Your task to perform on an android device: refresh tabs in the chrome app Image 0: 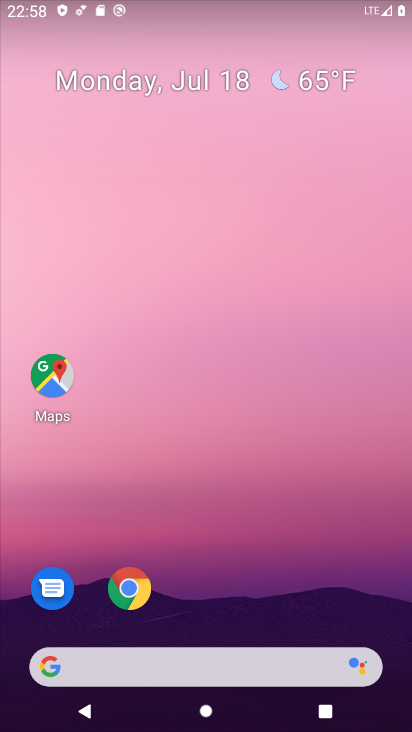
Step 0: press home button
Your task to perform on an android device: refresh tabs in the chrome app Image 1: 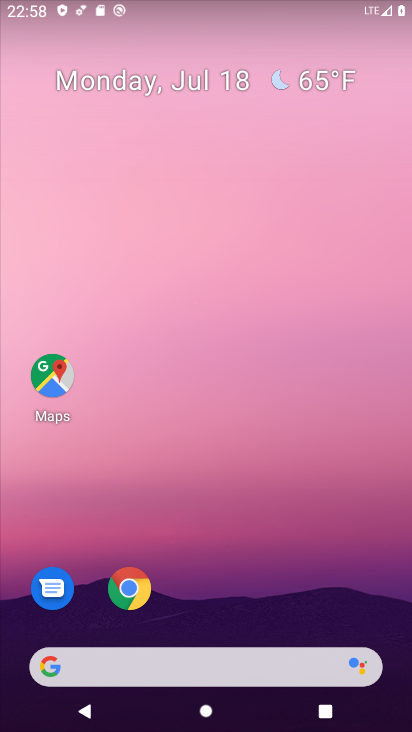
Step 1: click (125, 589)
Your task to perform on an android device: refresh tabs in the chrome app Image 2: 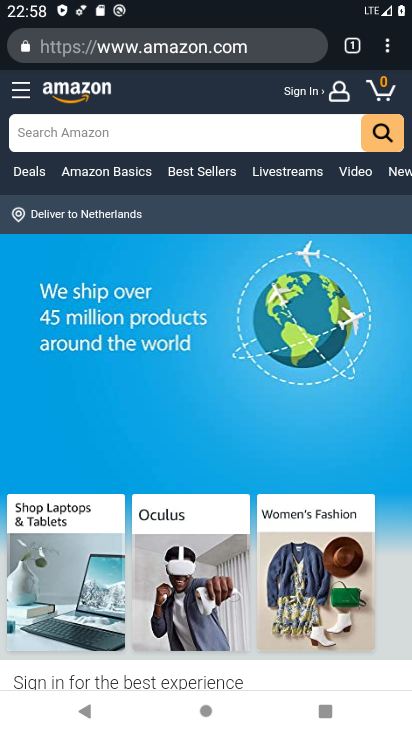
Step 2: click (391, 43)
Your task to perform on an android device: refresh tabs in the chrome app Image 3: 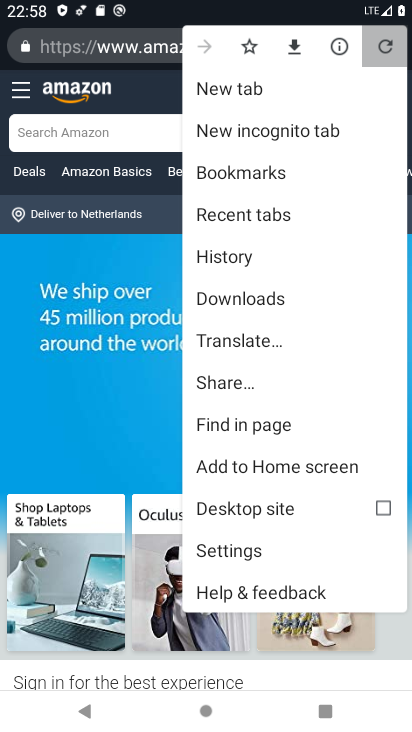
Step 3: click (390, 47)
Your task to perform on an android device: refresh tabs in the chrome app Image 4: 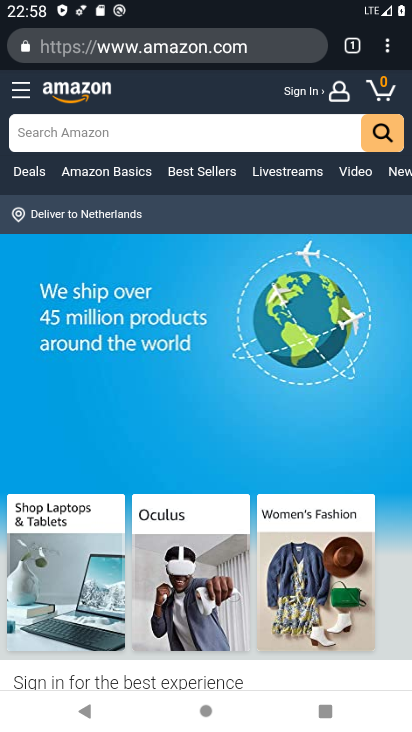
Step 4: click (390, 41)
Your task to perform on an android device: refresh tabs in the chrome app Image 5: 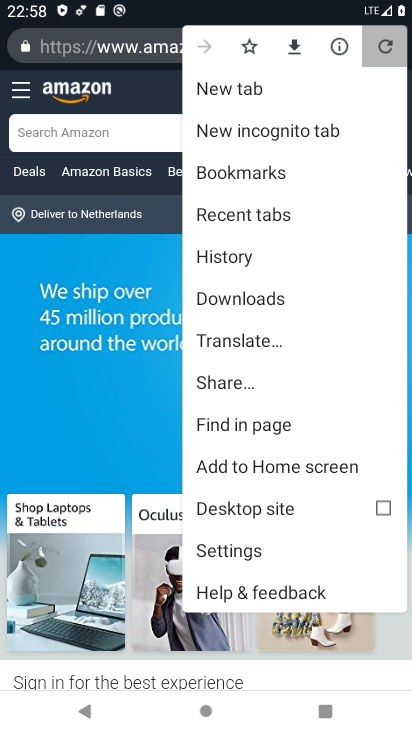
Step 5: click (390, 41)
Your task to perform on an android device: refresh tabs in the chrome app Image 6: 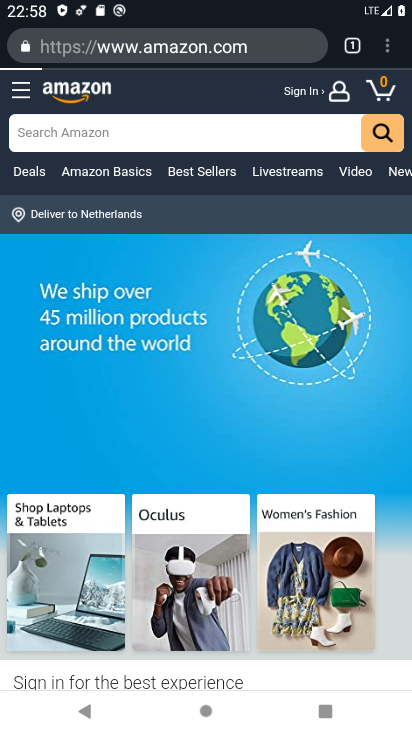
Step 6: click (390, 41)
Your task to perform on an android device: refresh tabs in the chrome app Image 7: 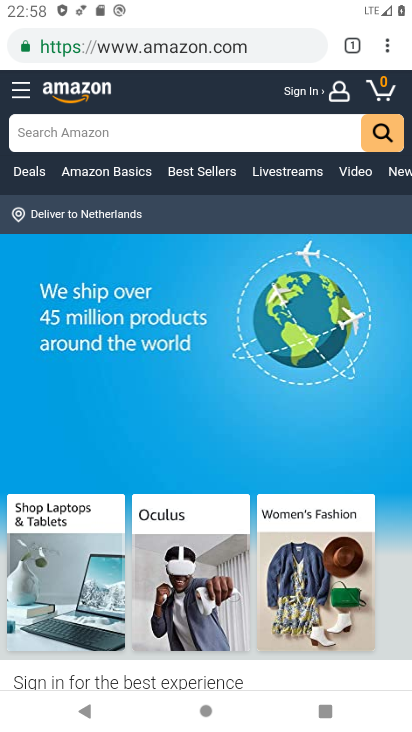
Step 7: task complete